Your task to perform on an android device: Open location settings Image 0: 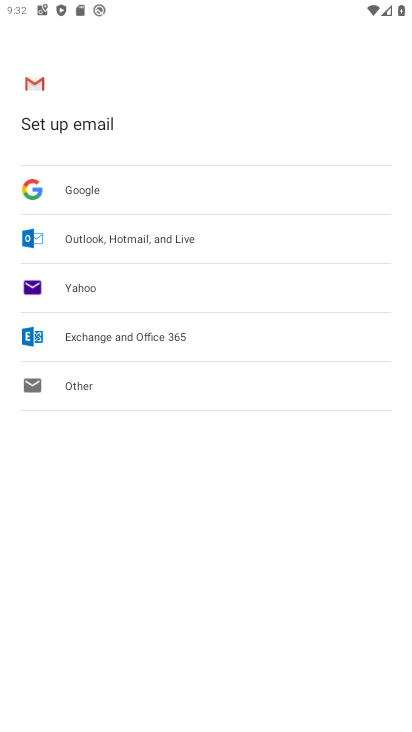
Step 0: drag from (205, 604) to (325, 233)
Your task to perform on an android device: Open location settings Image 1: 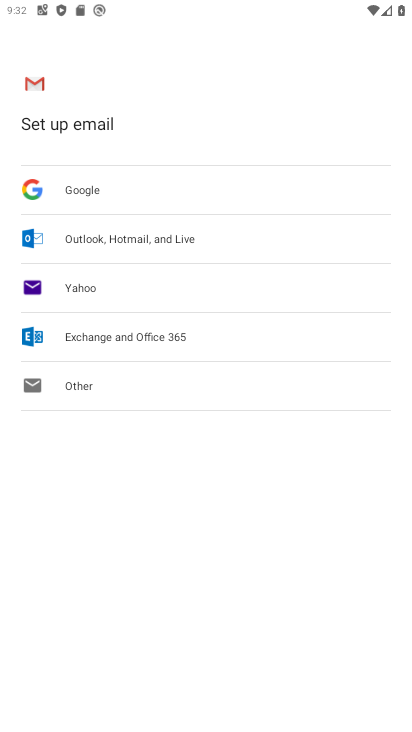
Step 1: press home button
Your task to perform on an android device: Open location settings Image 2: 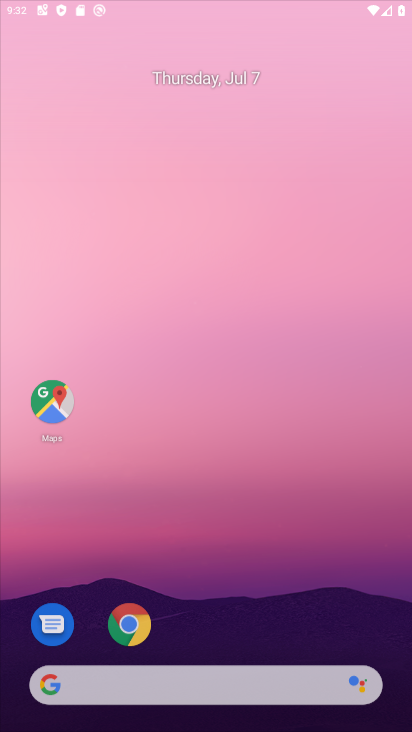
Step 2: drag from (197, 550) to (358, 82)
Your task to perform on an android device: Open location settings Image 3: 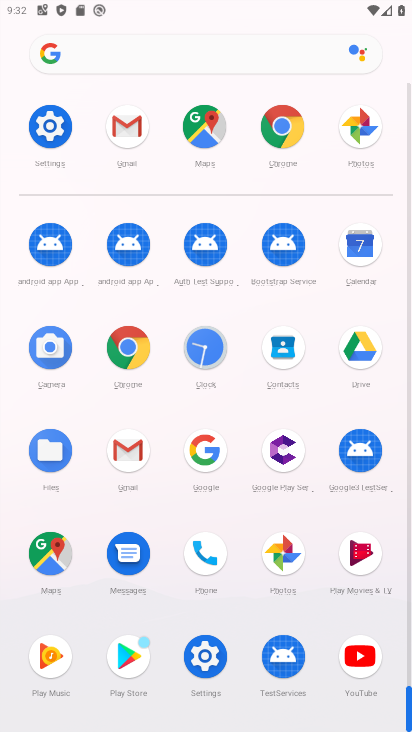
Step 3: click (195, 658)
Your task to perform on an android device: Open location settings Image 4: 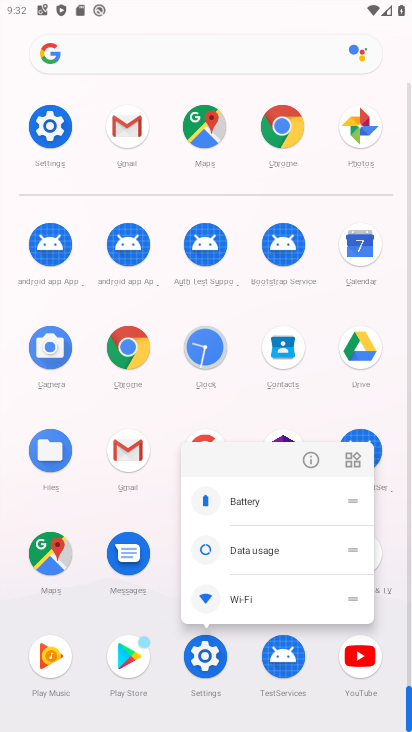
Step 4: click (304, 465)
Your task to perform on an android device: Open location settings Image 5: 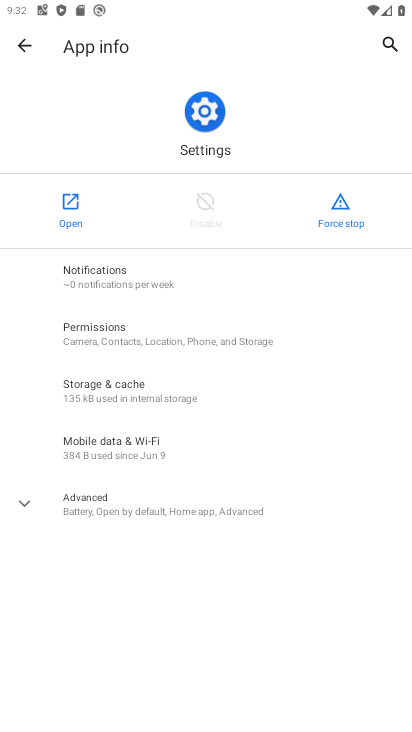
Step 5: click (73, 204)
Your task to perform on an android device: Open location settings Image 6: 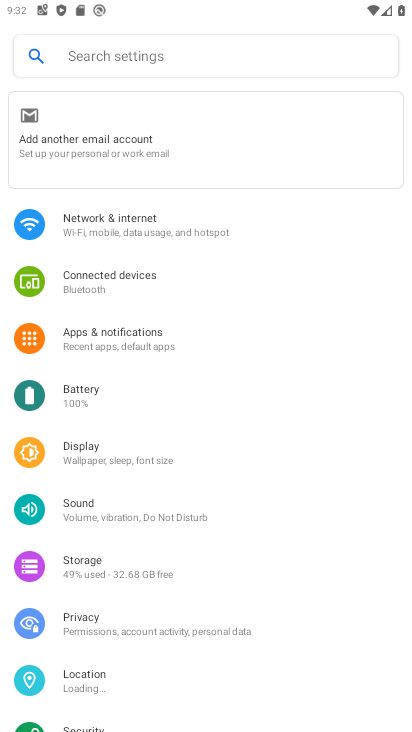
Step 6: drag from (183, 669) to (210, 353)
Your task to perform on an android device: Open location settings Image 7: 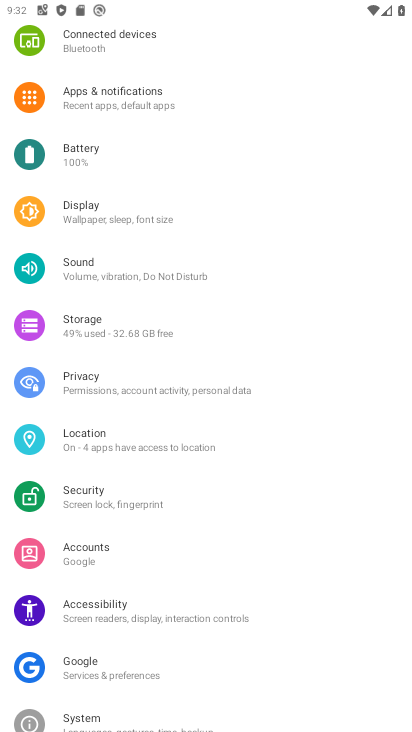
Step 7: click (187, 437)
Your task to perform on an android device: Open location settings Image 8: 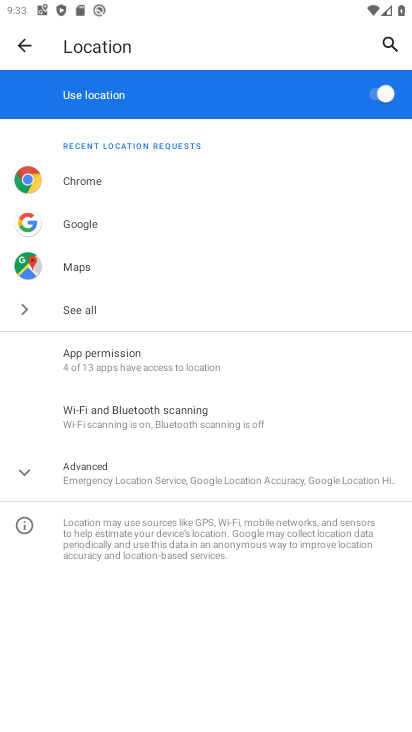
Step 8: drag from (225, 554) to (297, 244)
Your task to perform on an android device: Open location settings Image 9: 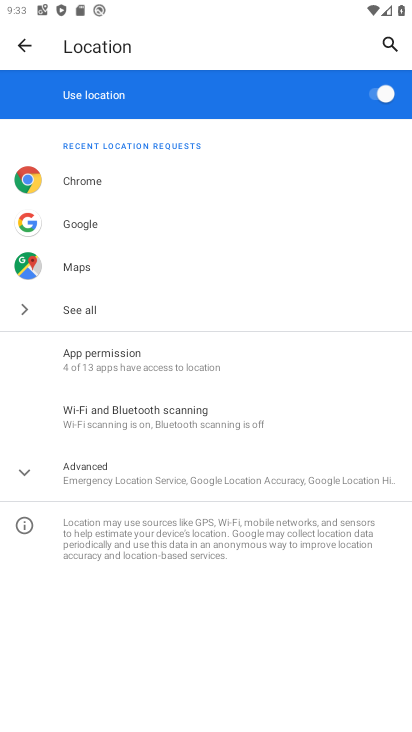
Step 9: click (91, 470)
Your task to perform on an android device: Open location settings Image 10: 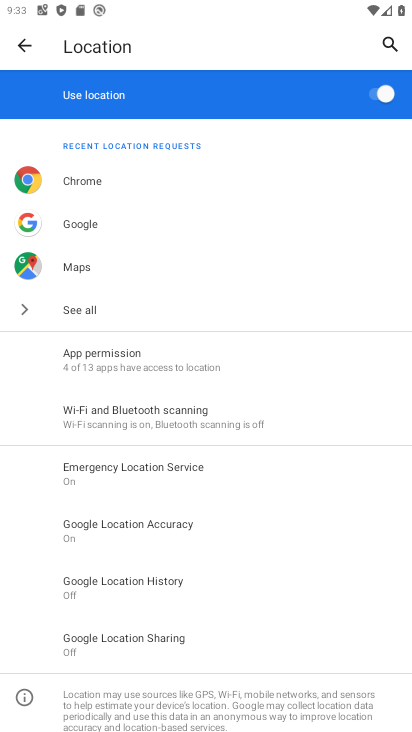
Step 10: task complete